Your task to perform on an android device: When is my next appointment? Image 0: 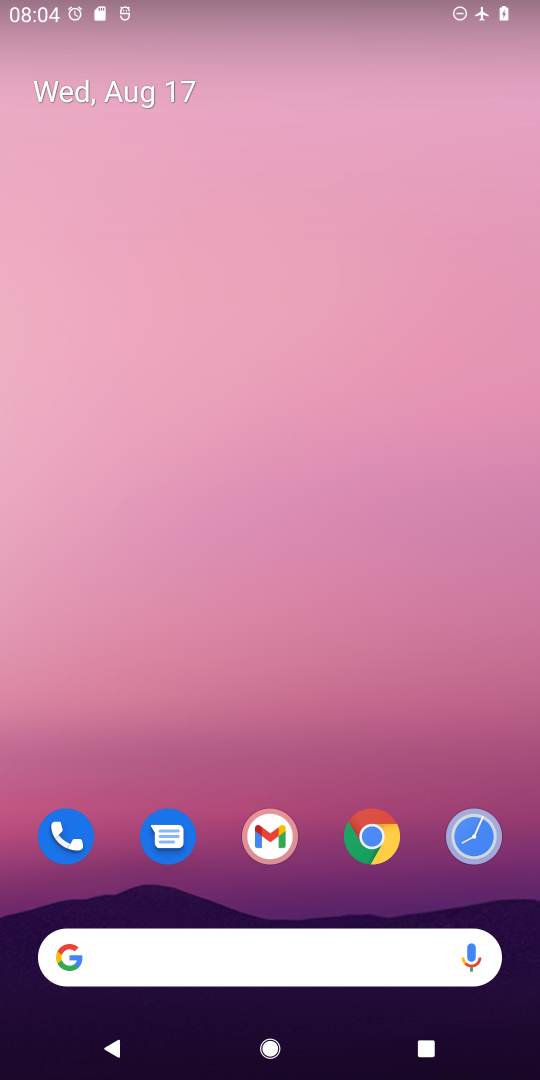
Step 0: drag from (215, 896) to (235, 294)
Your task to perform on an android device: When is my next appointment? Image 1: 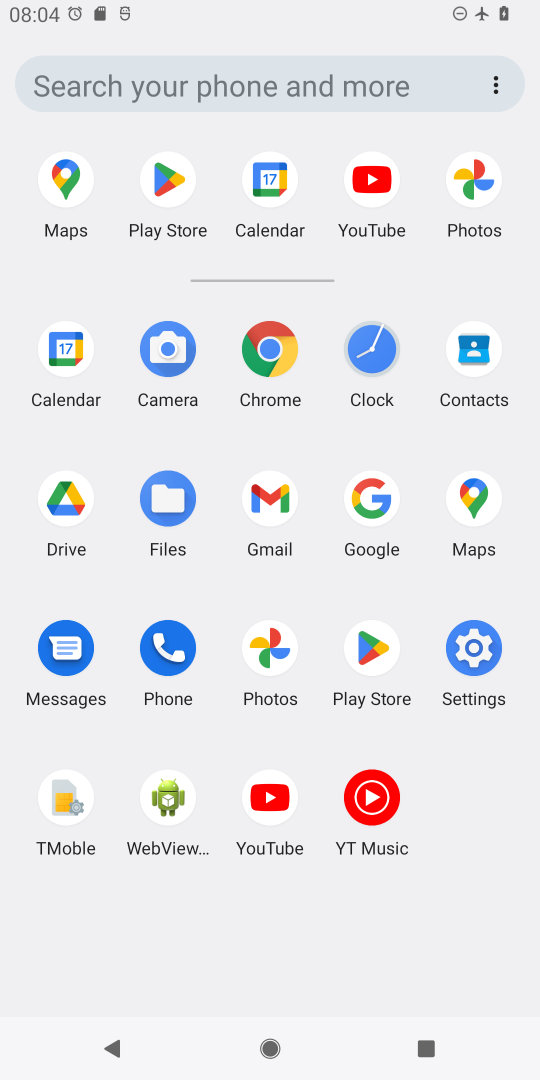
Step 1: click (61, 347)
Your task to perform on an android device: When is my next appointment? Image 2: 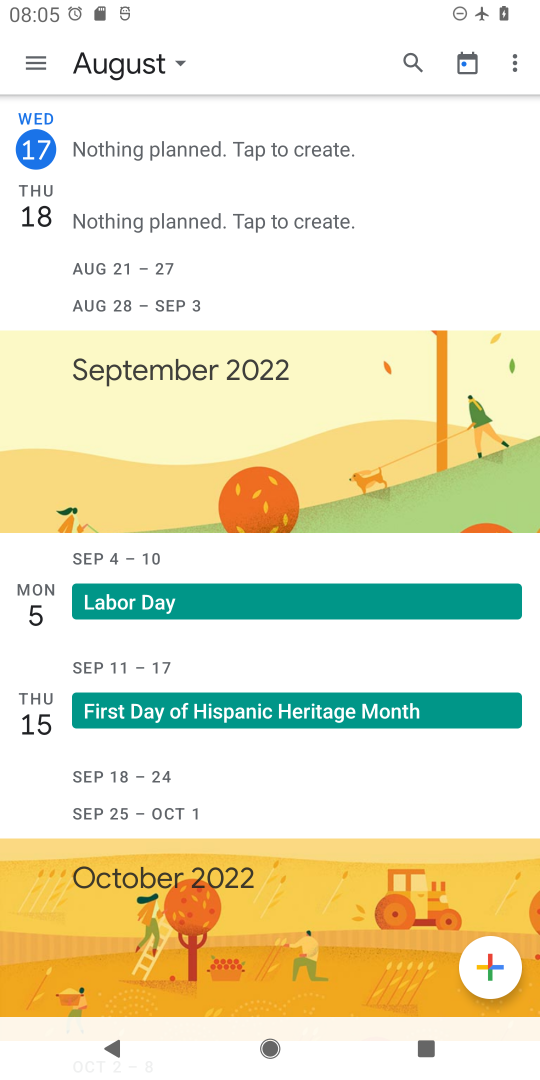
Step 2: click (36, 158)
Your task to perform on an android device: When is my next appointment? Image 3: 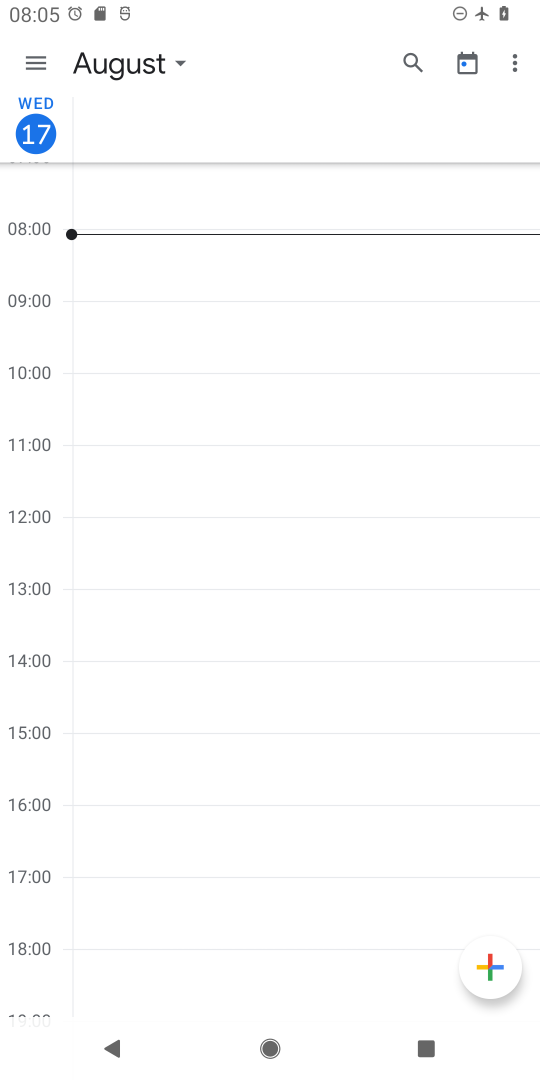
Step 3: task complete